Your task to perform on an android device: toggle data saver in the chrome app Image 0: 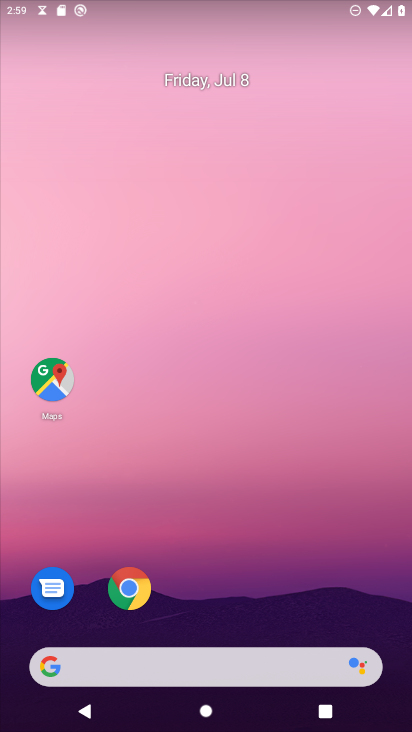
Step 0: drag from (197, 6) to (68, 5)
Your task to perform on an android device: toggle data saver in the chrome app Image 1: 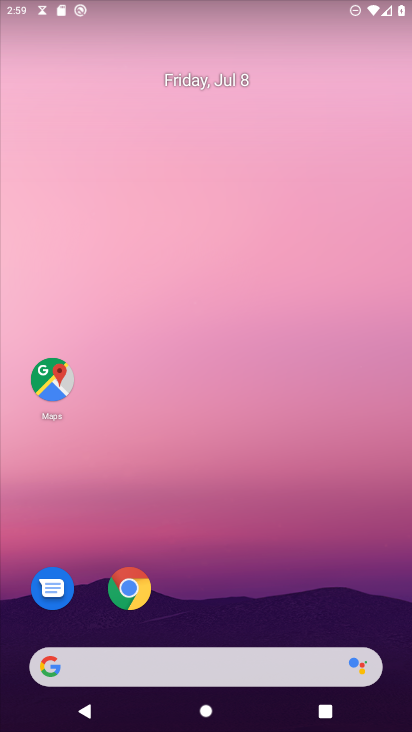
Step 1: click (135, 598)
Your task to perform on an android device: toggle data saver in the chrome app Image 2: 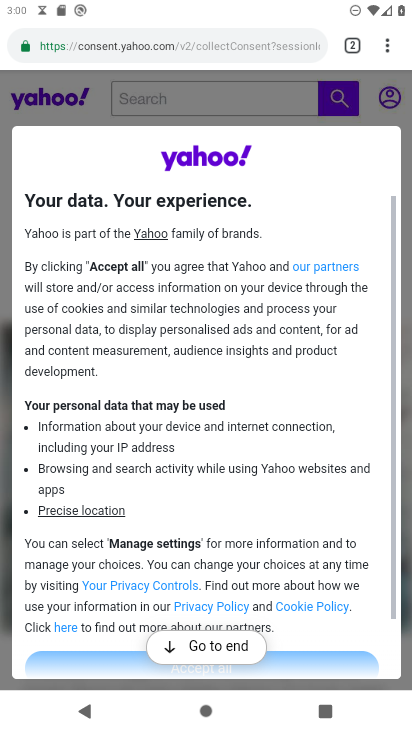
Step 2: click (384, 53)
Your task to perform on an android device: toggle data saver in the chrome app Image 3: 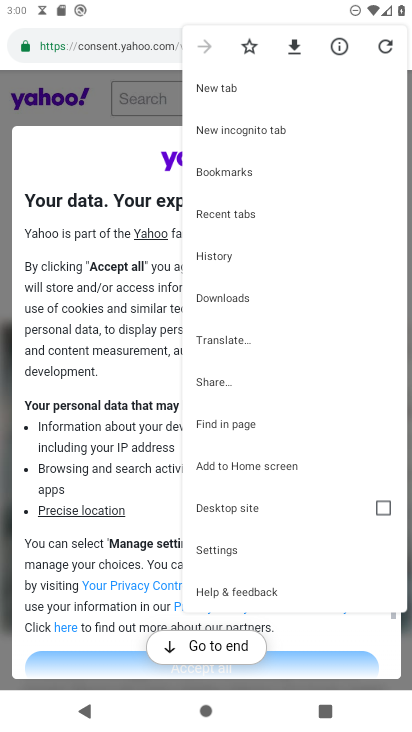
Step 3: click (213, 557)
Your task to perform on an android device: toggle data saver in the chrome app Image 4: 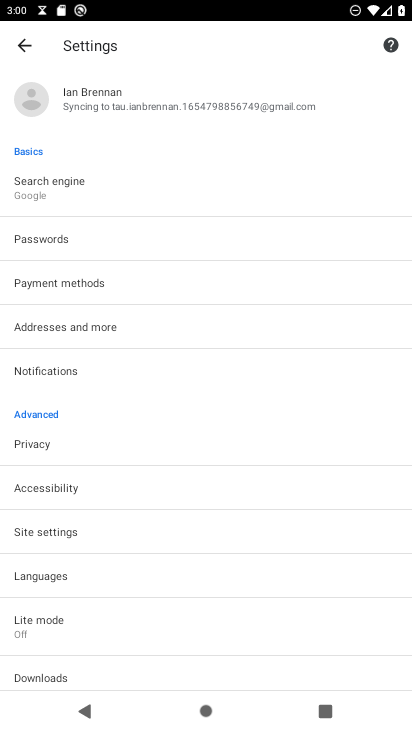
Step 4: click (41, 632)
Your task to perform on an android device: toggle data saver in the chrome app Image 5: 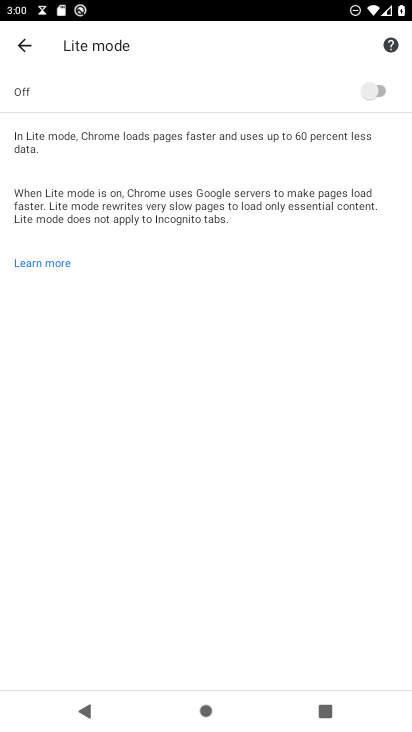
Step 5: click (383, 96)
Your task to perform on an android device: toggle data saver in the chrome app Image 6: 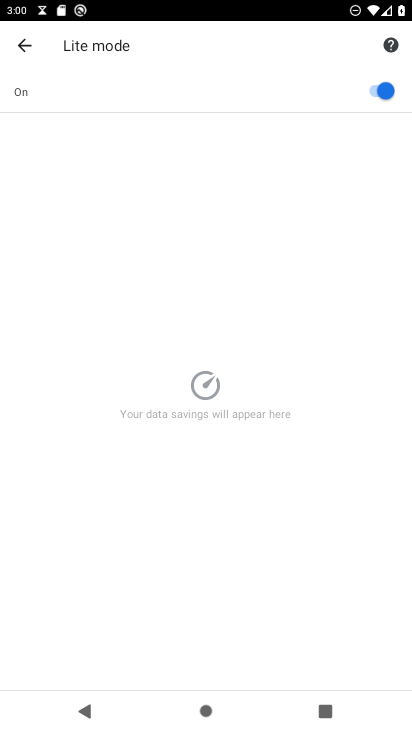
Step 6: task complete